Your task to perform on an android device: Find coffee shops on Maps Image 0: 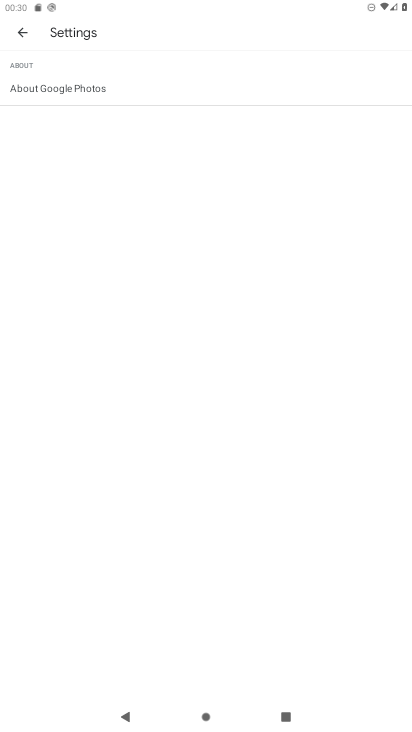
Step 0: press home button
Your task to perform on an android device: Find coffee shops on Maps Image 1: 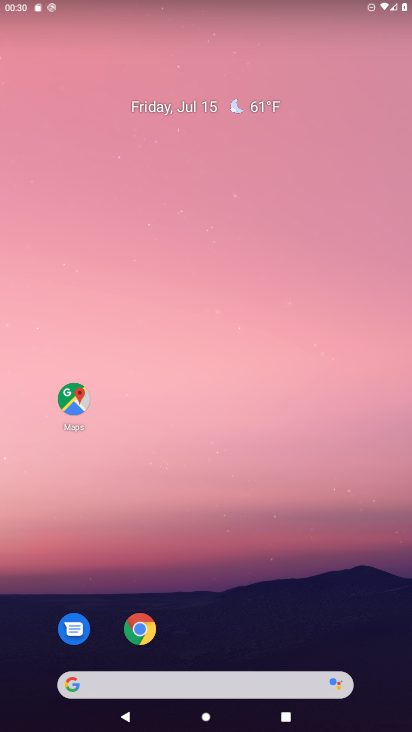
Step 1: click (73, 388)
Your task to perform on an android device: Find coffee shops on Maps Image 2: 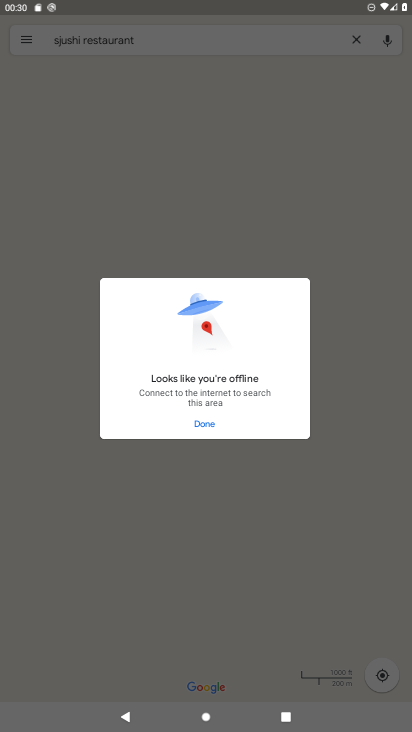
Step 2: click (213, 415)
Your task to perform on an android device: Find coffee shops on Maps Image 3: 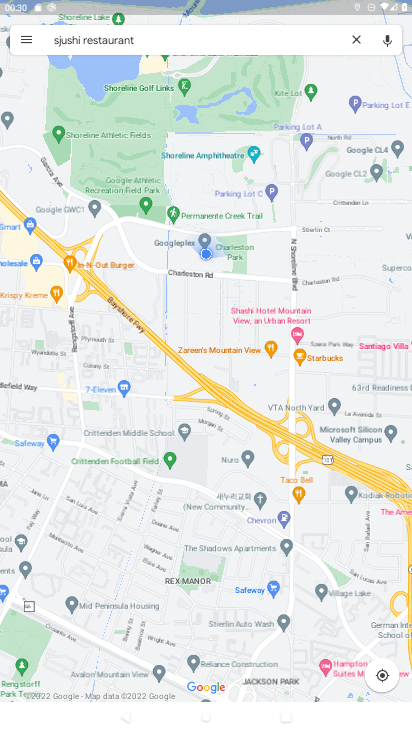
Step 3: click (357, 32)
Your task to perform on an android device: Find coffee shops on Maps Image 4: 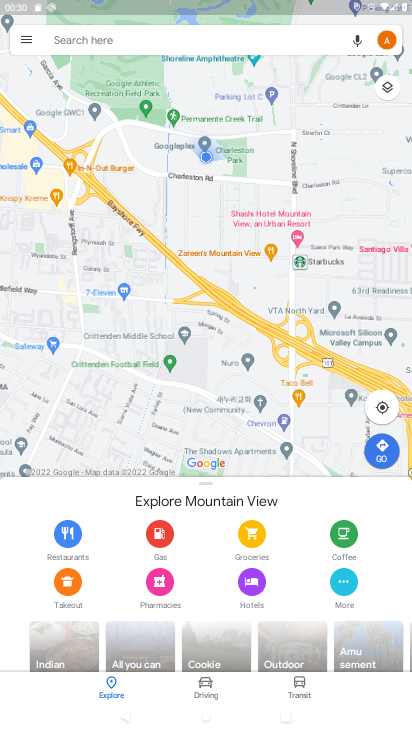
Step 4: click (210, 40)
Your task to perform on an android device: Find coffee shops on Maps Image 5: 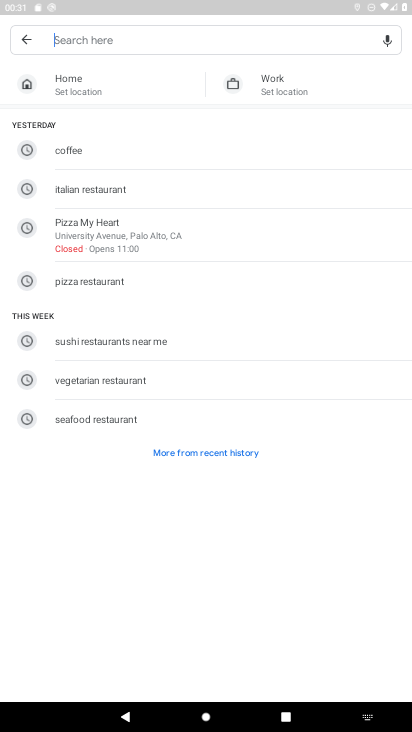
Step 5: click (81, 146)
Your task to perform on an android device: Find coffee shops on Maps Image 6: 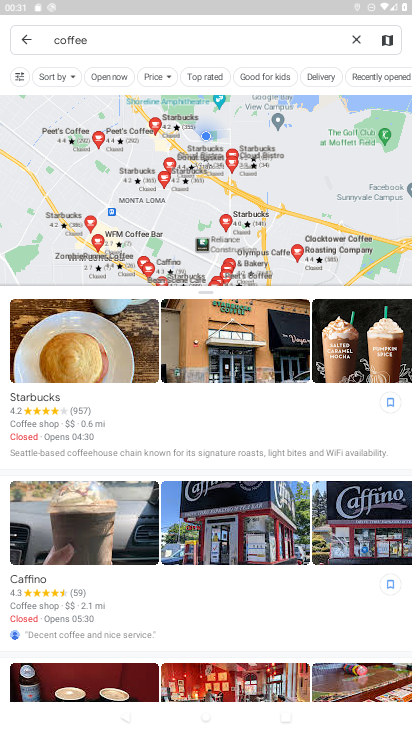
Step 6: task complete